Your task to perform on an android device: refresh tabs in the chrome app Image 0: 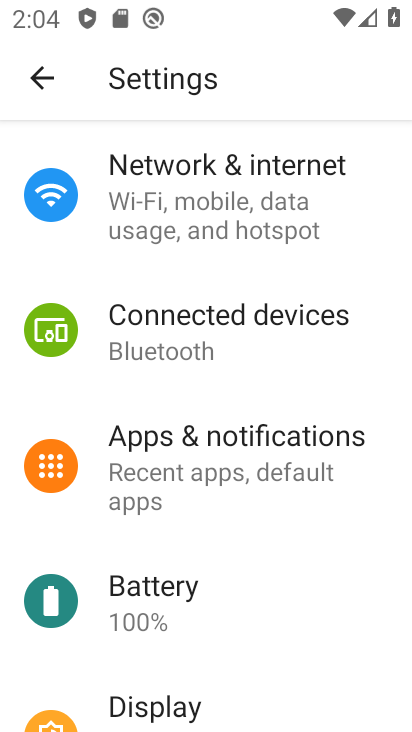
Step 0: press back button
Your task to perform on an android device: refresh tabs in the chrome app Image 1: 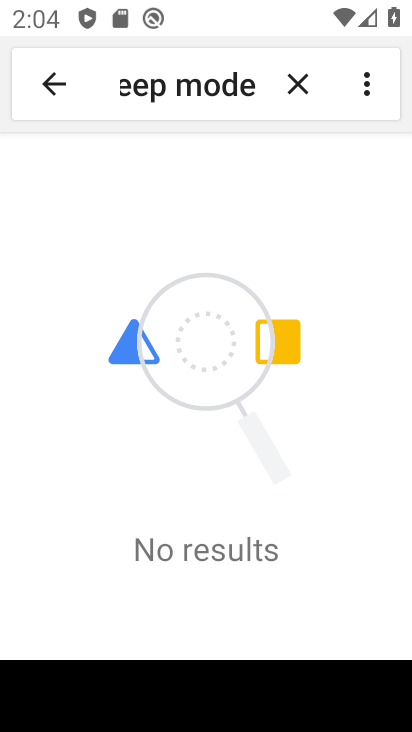
Step 1: press back button
Your task to perform on an android device: refresh tabs in the chrome app Image 2: 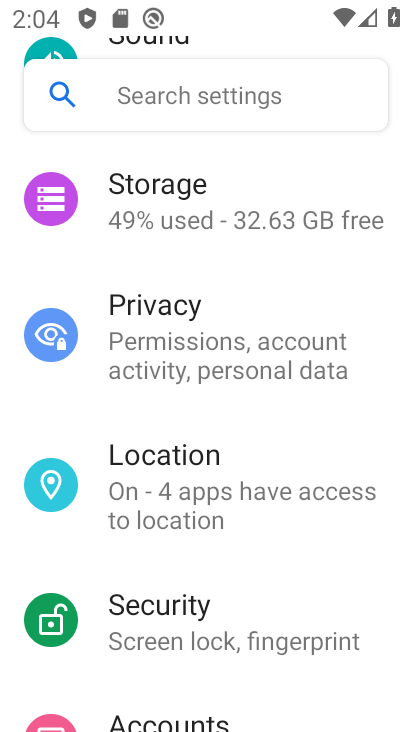
Step 2: press back button
Your task to perform on an android device: refresh tabs in the chrome app Image 3: 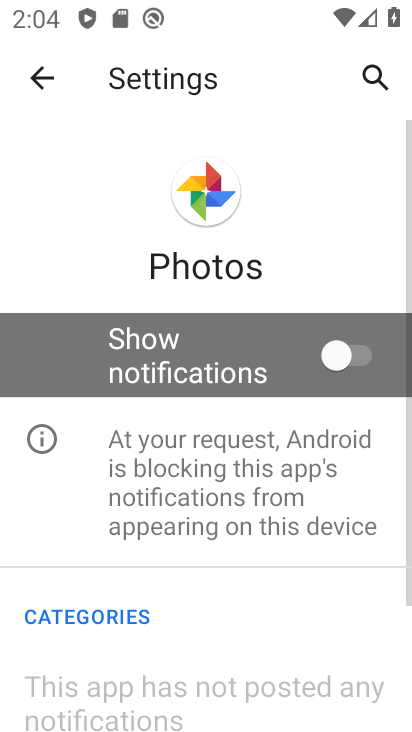
Step 3: press back button
Your task to perform on an android device: refresh tabs in the chrome app Image 4: 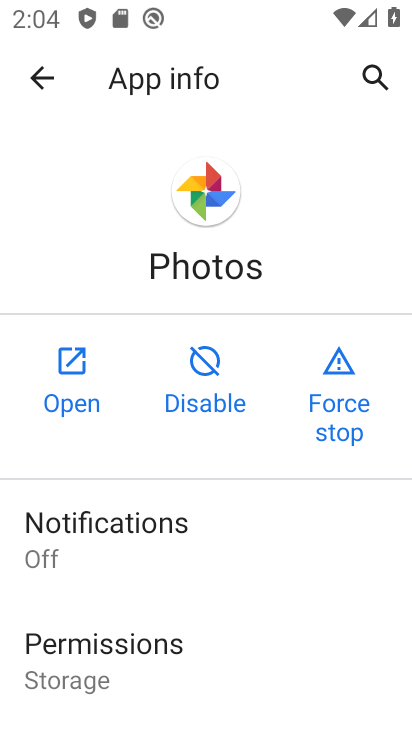
Step 4: press back button
Your task to perform on an android device: refresh tabs in the chrome app Image 5: 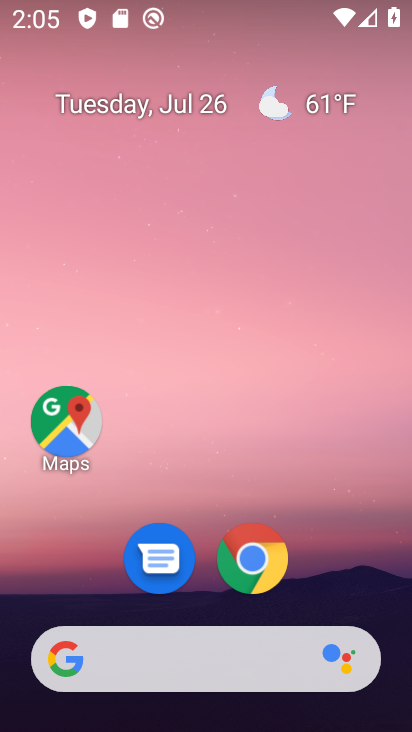
Step 5: click (258, 549)
Your task to perform on an android device: refresh tabs in the chrome app Image 6: 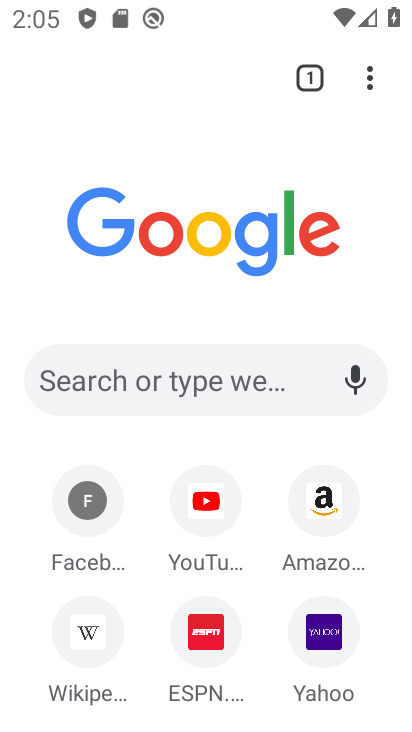
Step 6: click (368, 67)
Your task to perform on an android device: refresh tabs in the chrome app Image 7: 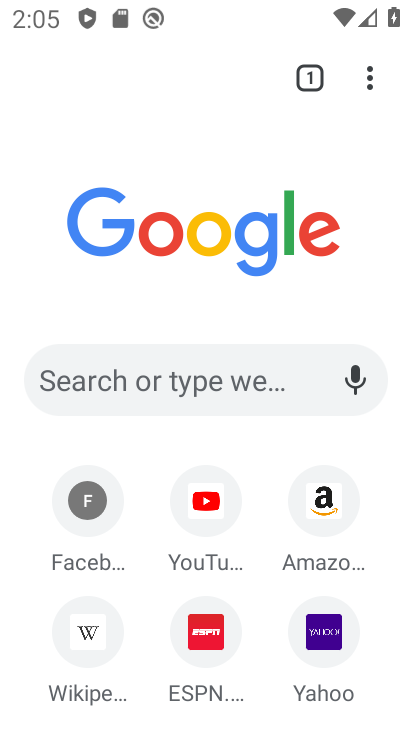
Step 7: task complete